Your task to perform on an android device: open app "PUBG MOBILE" Image 0: 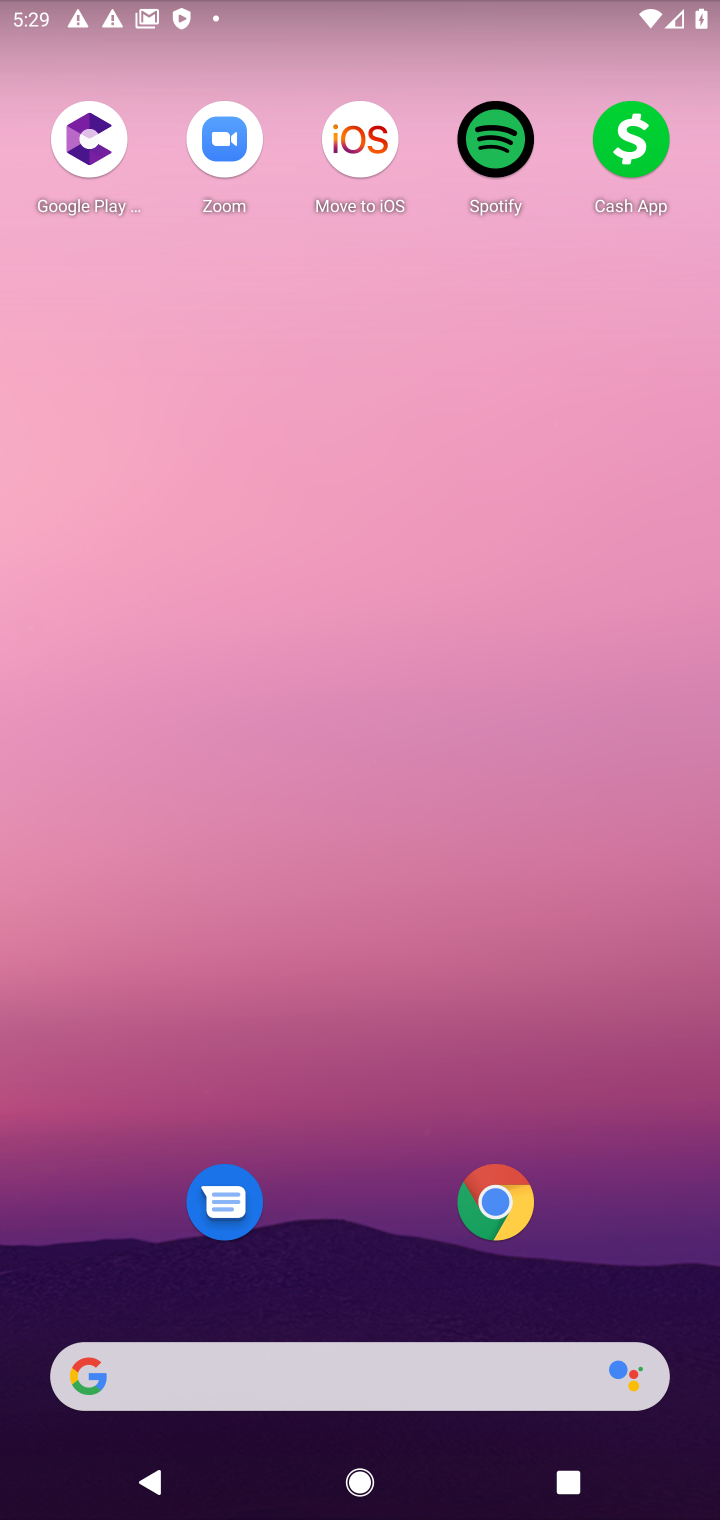
Step 0: drag from (308, 1348) to (94, 33)
Your task to perform on an android device: open app "PUBG MOBILE" Image 1: 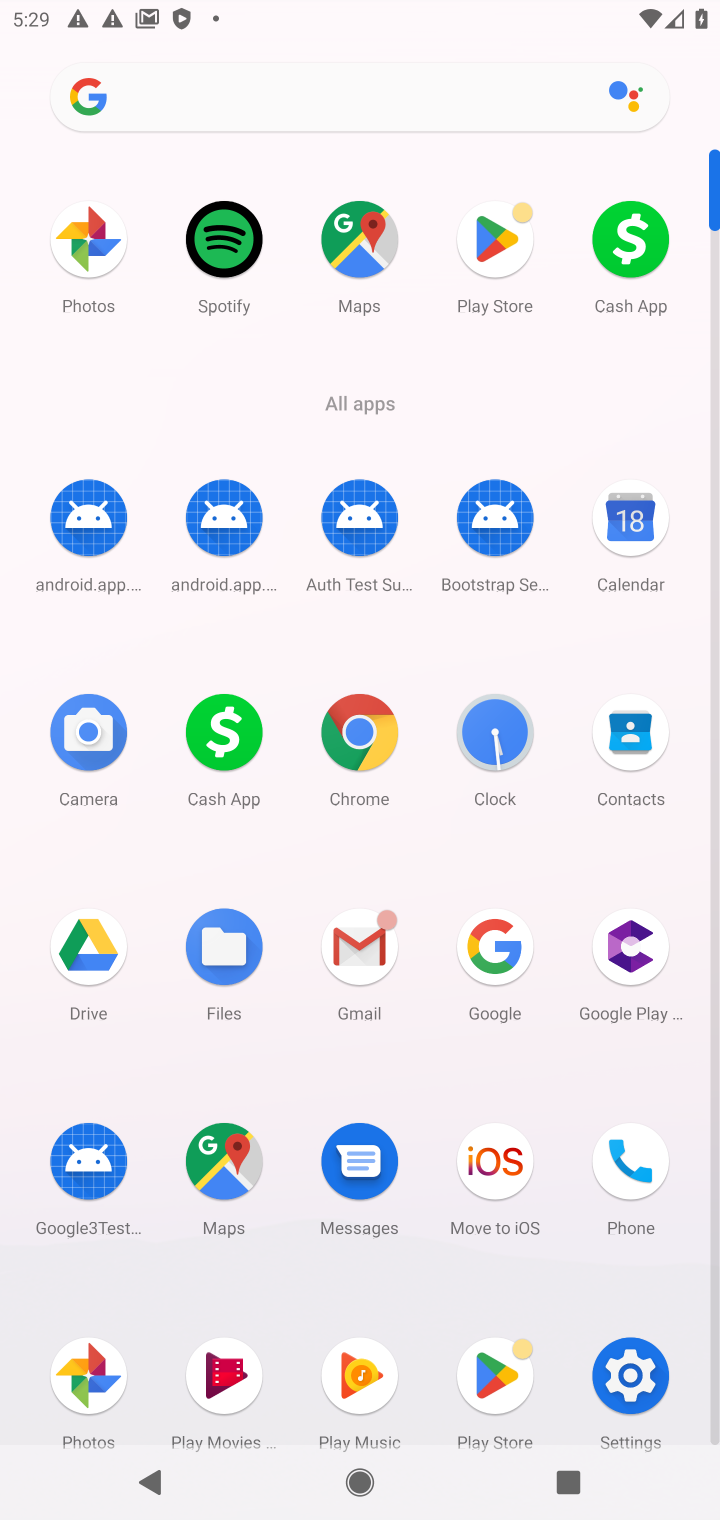
Step 1: click (480, 280)
Your task to perform on an android device: open app "PUBG MOBILE" Image 2: 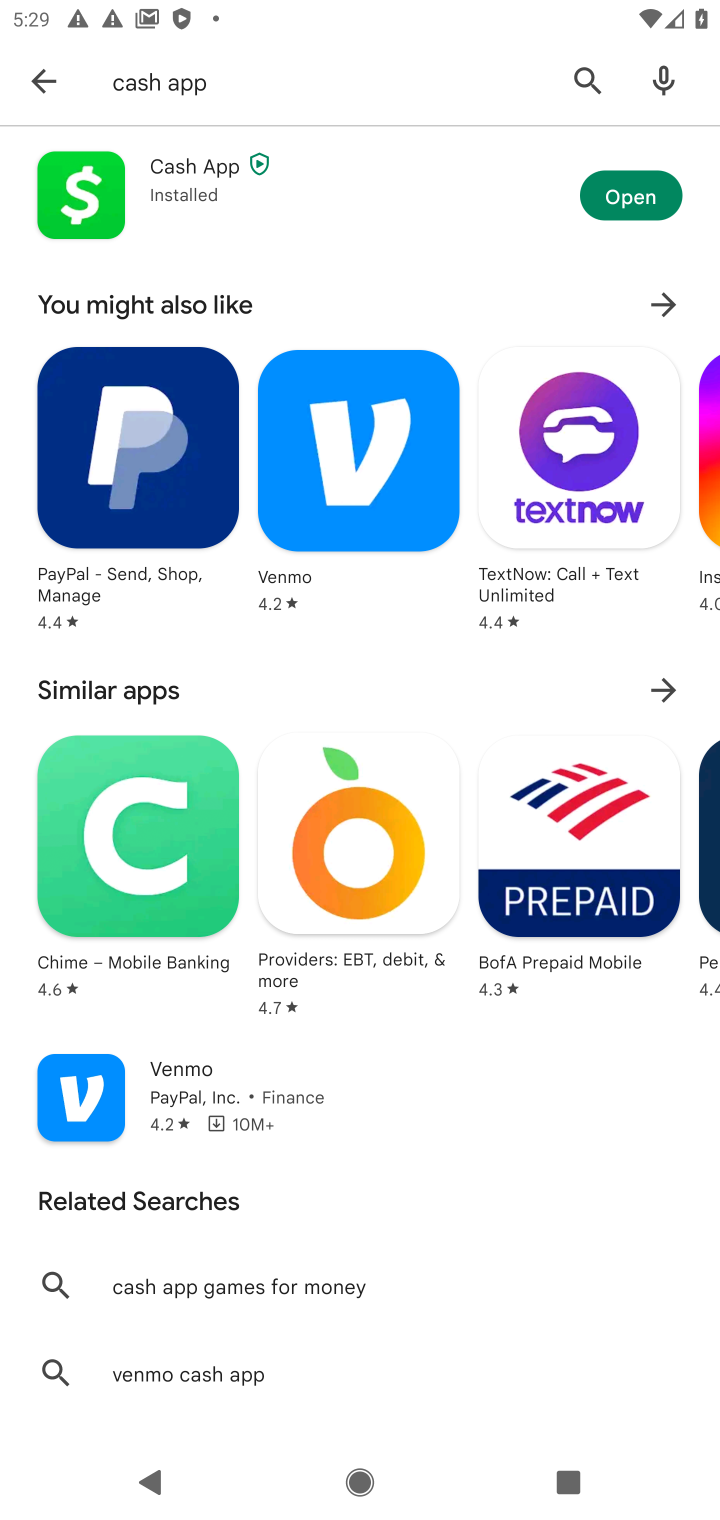
Step 2: click (589, 98)
Your task to perform on an android device: open app "PUBG MOBILE" Image 3: 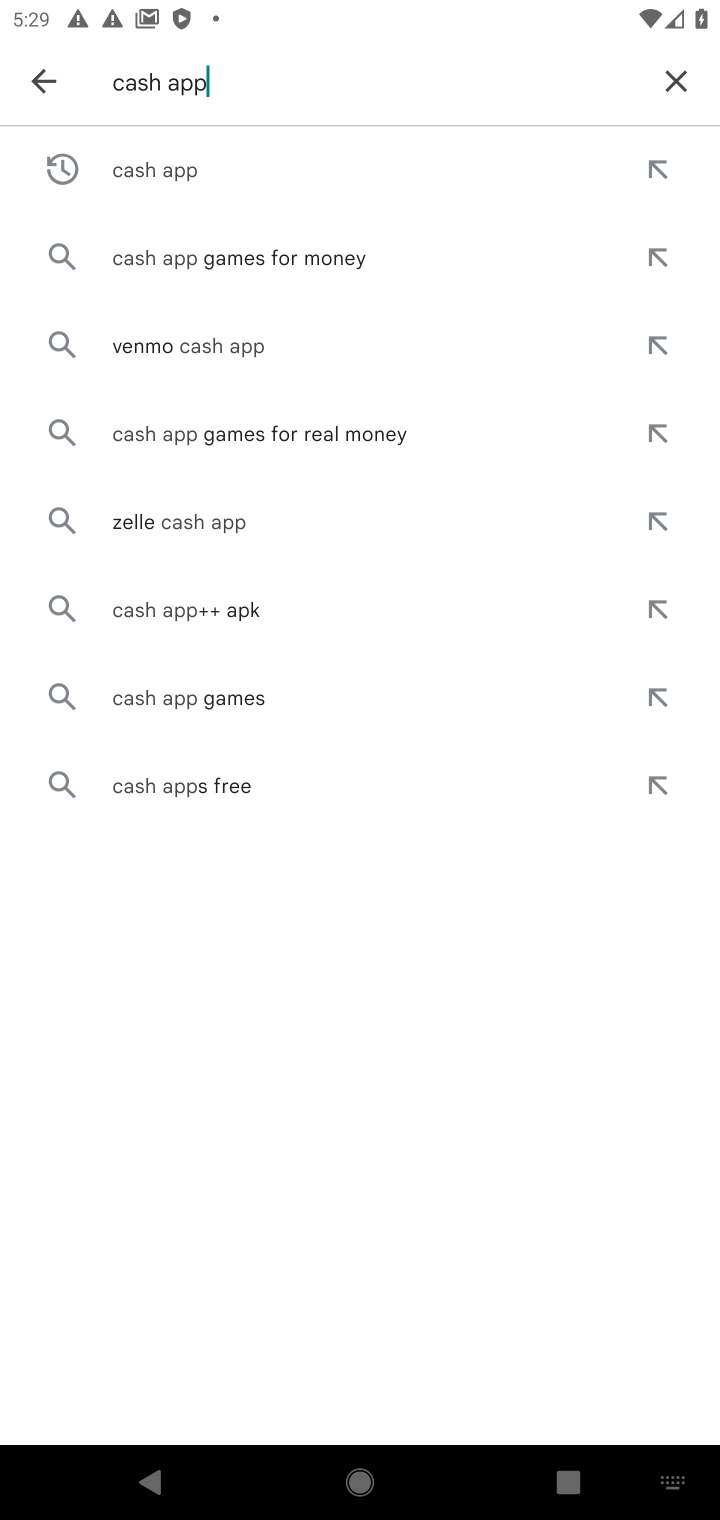
Step 3: click (680, 74)
Your task to perform on an android device: open app "PUBG MOBILE" Image 4: 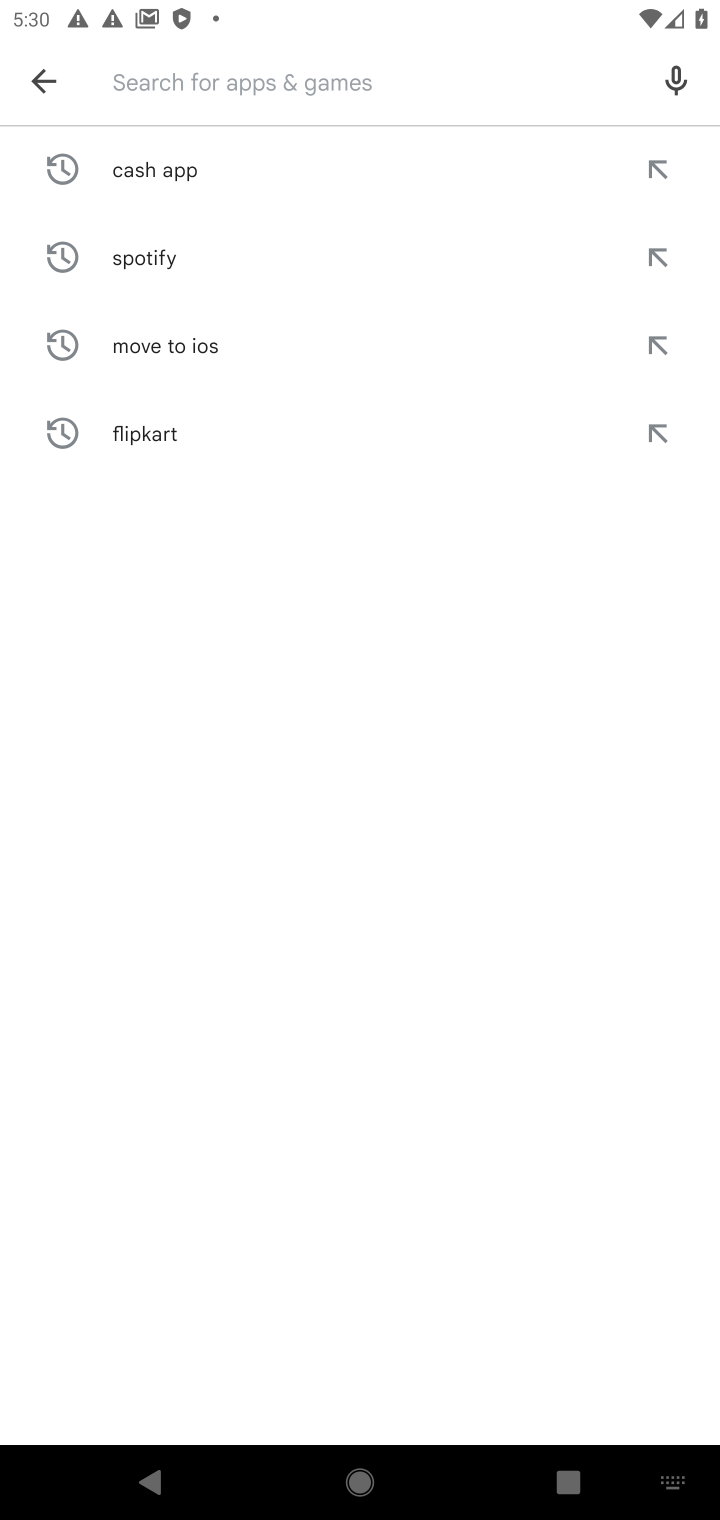
Step 4: type "pubg mobile"
Your task to perform on an android device: open app "PUBG MOBILE" Image 5: 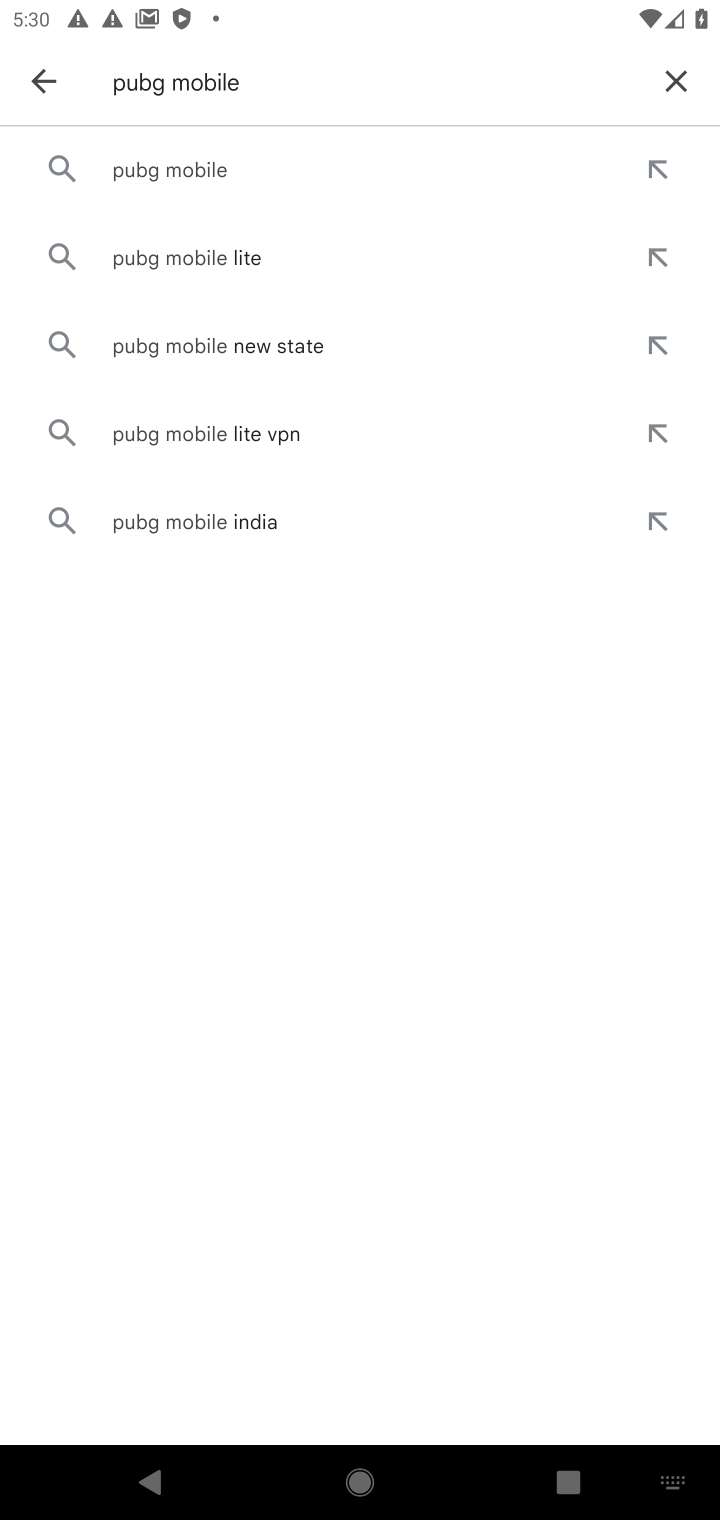
Step 5: click (192, 158)
Your task to perform on an android device: open app "PUBG MOBILE" Image 6: 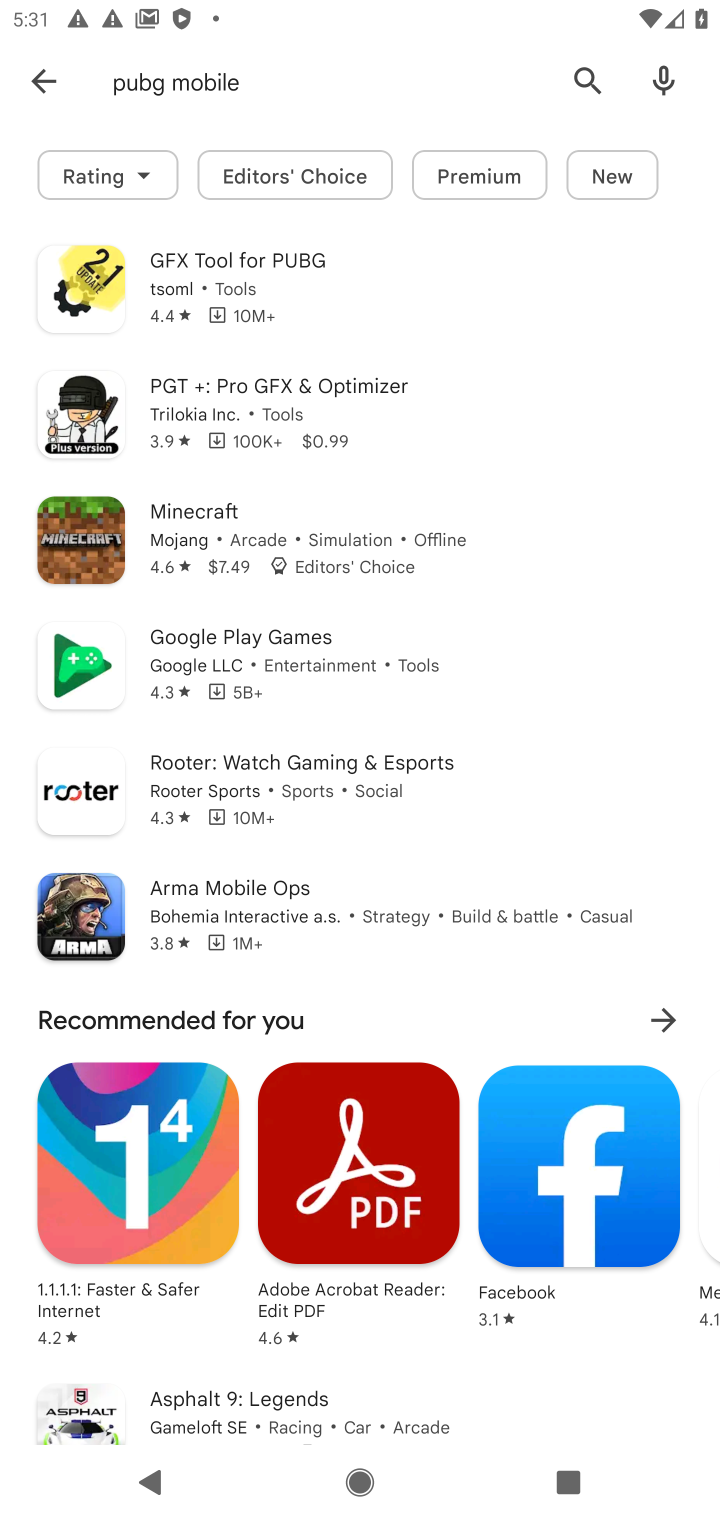
Step 6: task complete